Your task to perform on an android device: Open the web browser Image 0: 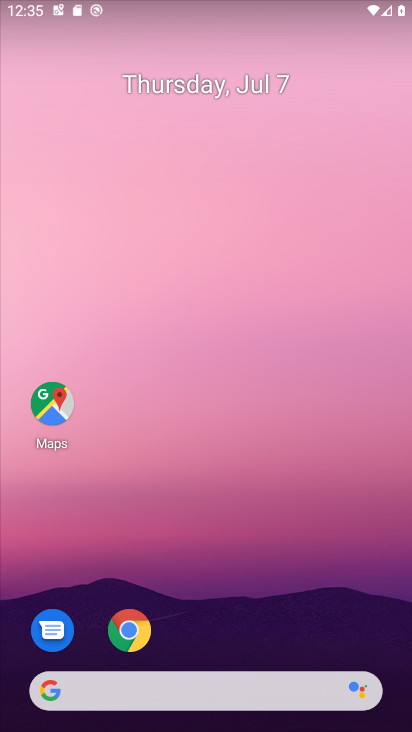
Step 0: drag from (225, 594) to (226, 292)
Your task to perform on an android device: Open the web browser Image 1: 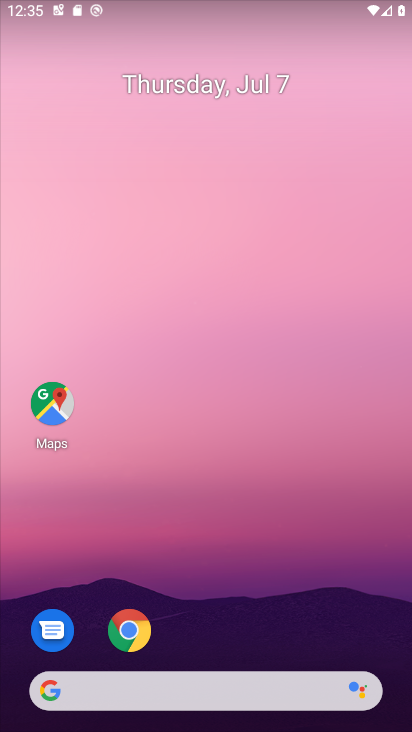
Step 1: drag from (284, 694) to (320, 304)
Your task to perform on an android device: Open the web browser Image 2: 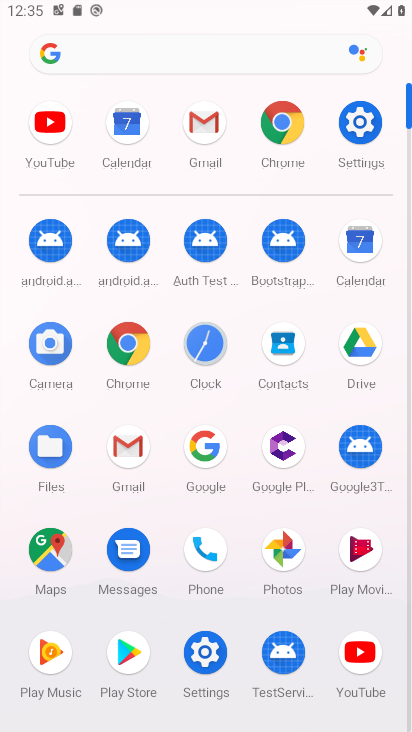
Step 2: click (199, 455)
Your task to perform on an android device: Open the web browser Image 3: 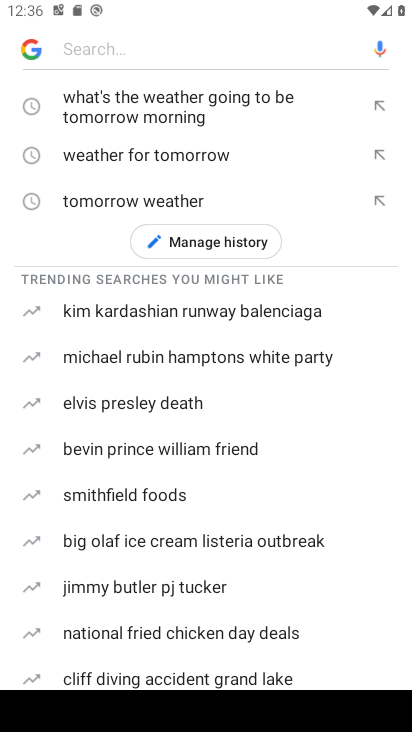
Step 3: task complete